Your task to perform on an android device: turn notification dots off Image 0: 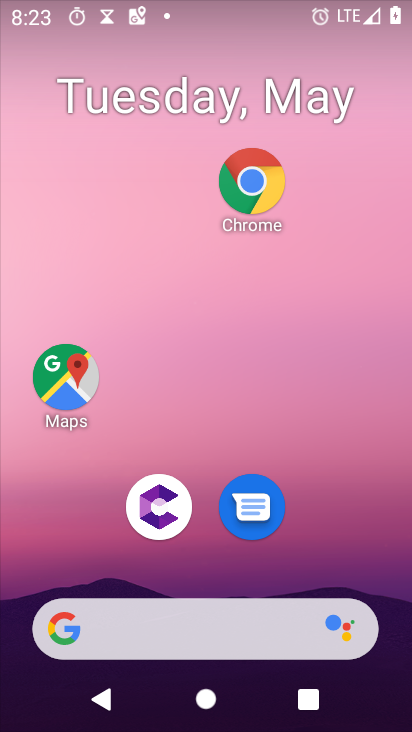
Step 0: drag from (353, 551) to (307, 84)
Your task to perform on an android device: turn notification dots off Image 1: 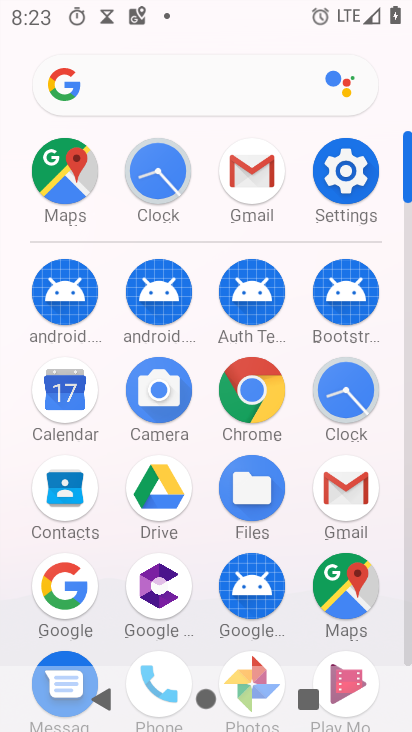
Step 1: click (347, 181)
Your task to perform on an android device: turn notification dots off Image 2: 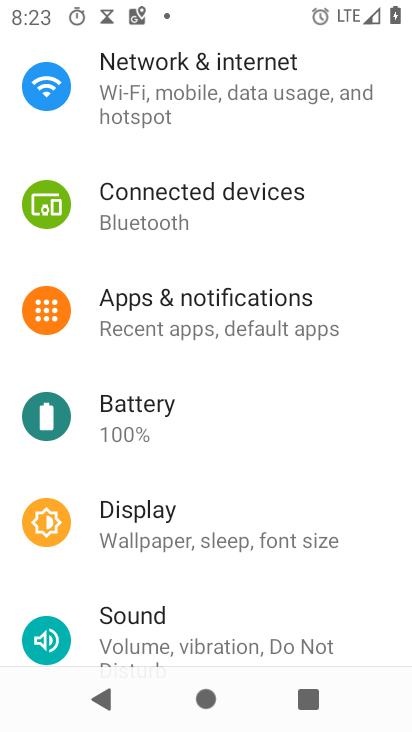
Step 2: click (287, 316)
Your task to perform on an android device: turn notification dots off Image 3: 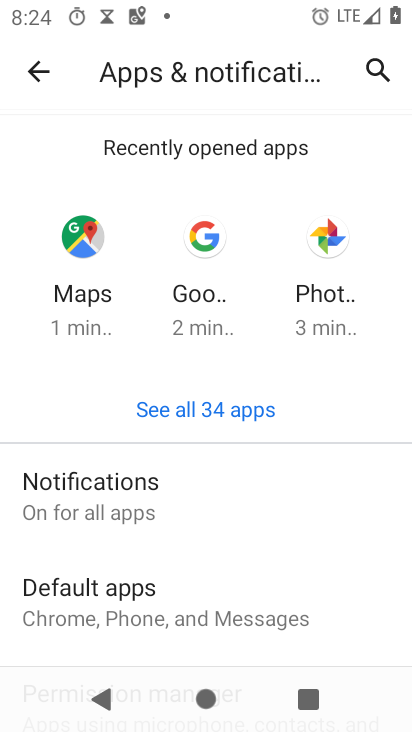
Step 3: click (222, 491)
Your task to perform on an android device: turn notification dots off Image 4: 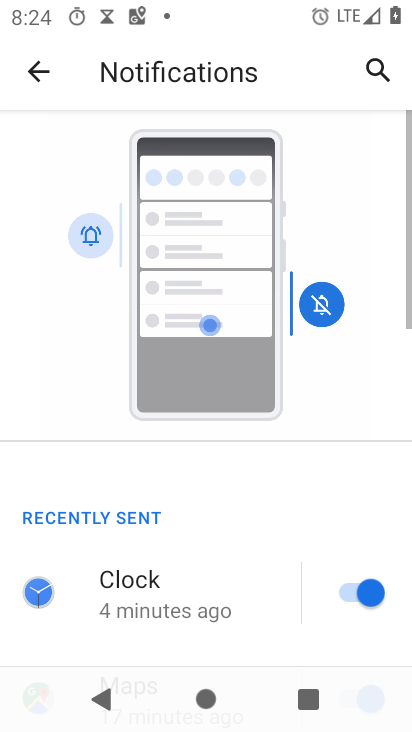
Step 4: drag from (247, 479) to (336, 152)
Your task to perform on an android device: turn notification dots off Image 5: 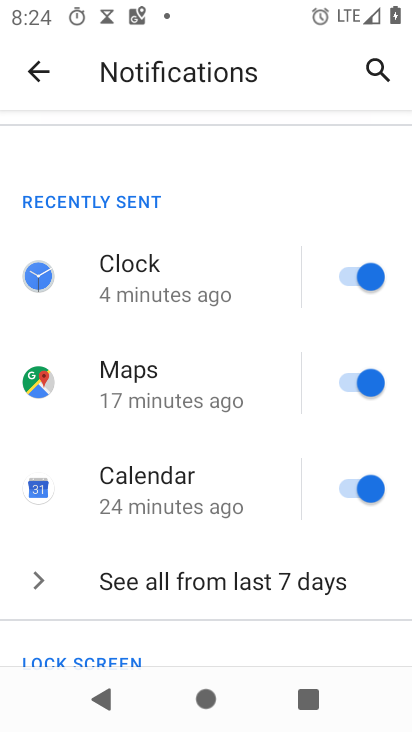
Step 5: drag from (212, 515) to (238, 246)
Your task to perform on an android device: turn notification dots off Image 6: 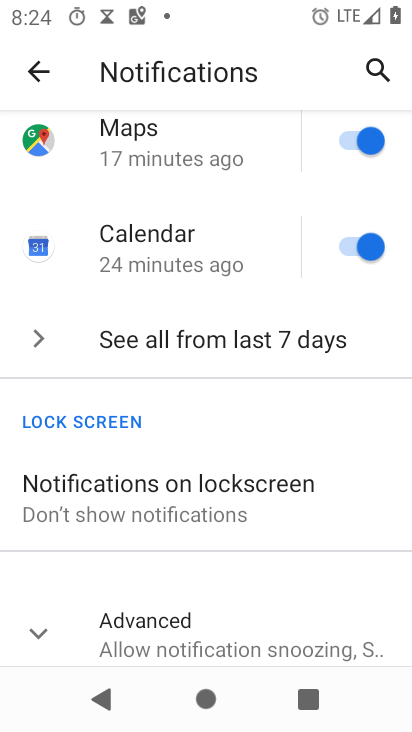
Step 6: click (181, 610)
Your task to perform on an android device: turn notification dots off Image 7: 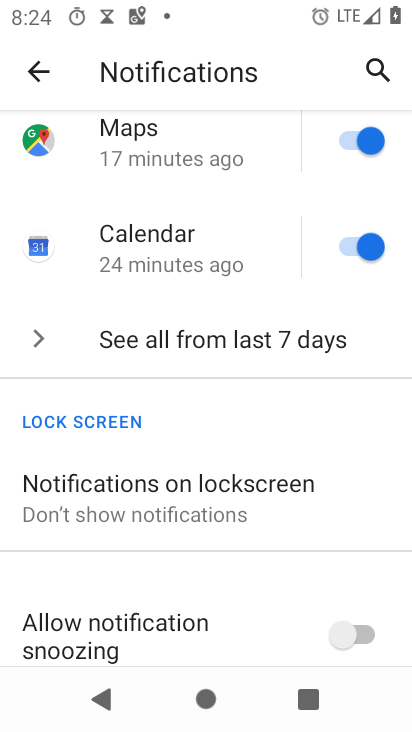
Step 7: task complete